Your task to perform on an android device: show emergency info Image 0: 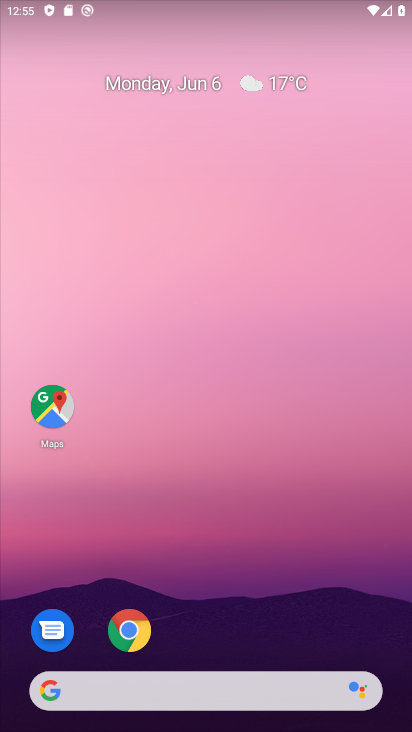
Step 0: drag from (198, 369) to (153, 187)
Your task to perform on an android device: show emergency info Image 1: 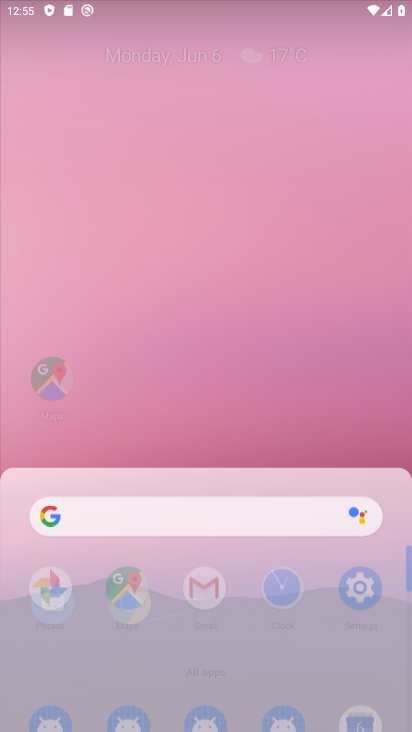
Step 1: drag from (228, 707) to (191, 228)
Your task to perform on an android device: show emergency info Image 2: 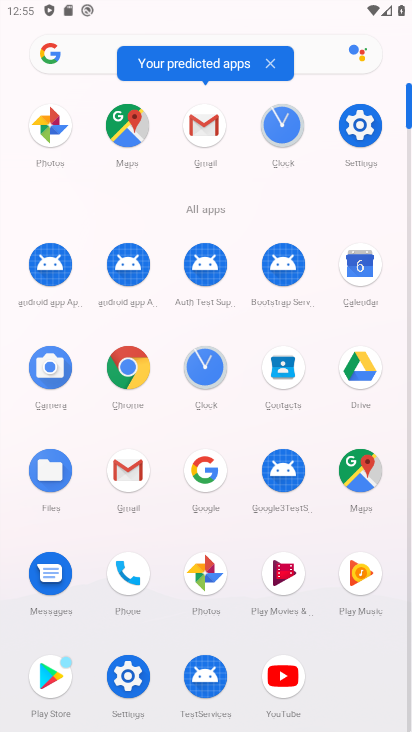
Step 2: click (129, 687)
Your task to perform on an android device: show emergency info Image 3: 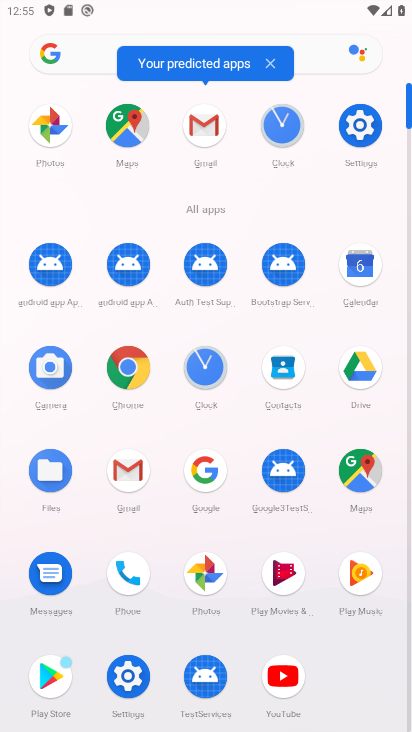
Step 3: click (129, 687)
Your task to perform on an android device: show emergency info Image 4: 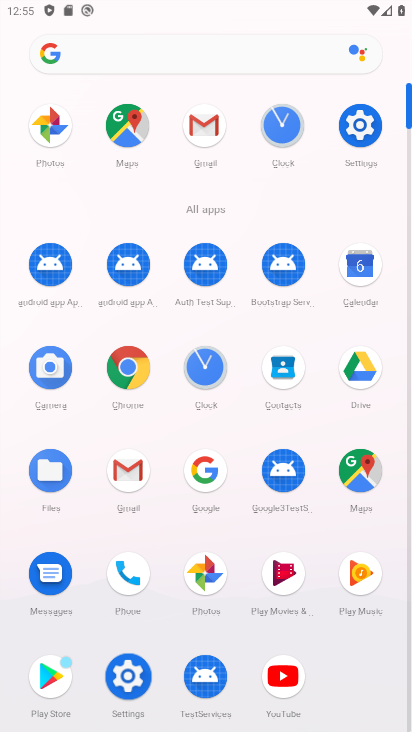
Step 4: click (130, 688)
Your task to perform on an android device: show emergency info Image 5: 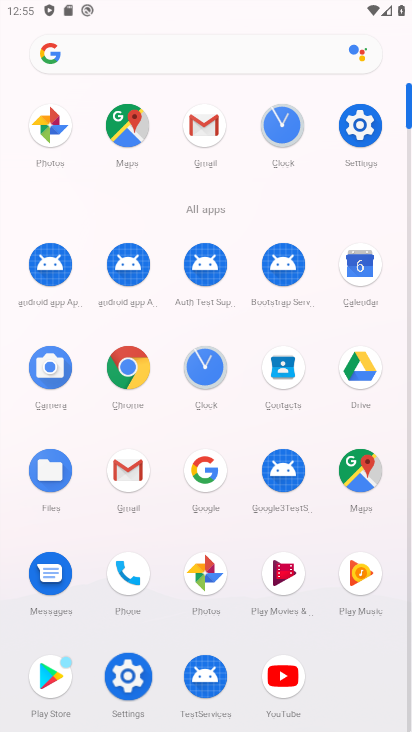
Step 5: click (137, 689)
Your task to perform on an android device: show emergency info Image 6: 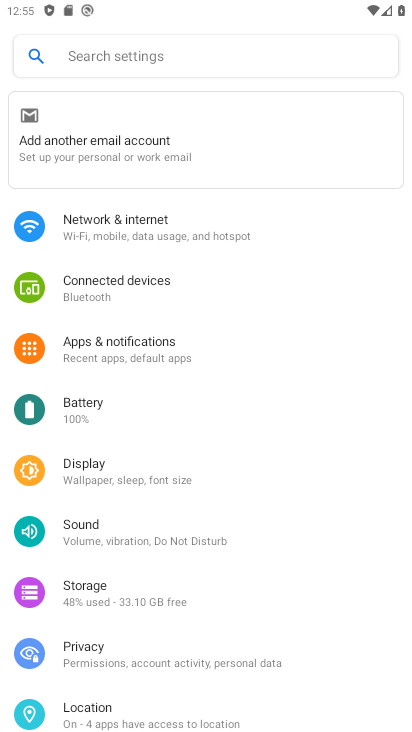
Step 6: drag from (109, 366) to (100, 277)
Your task to perform on an android device: show emergency info Image 7: 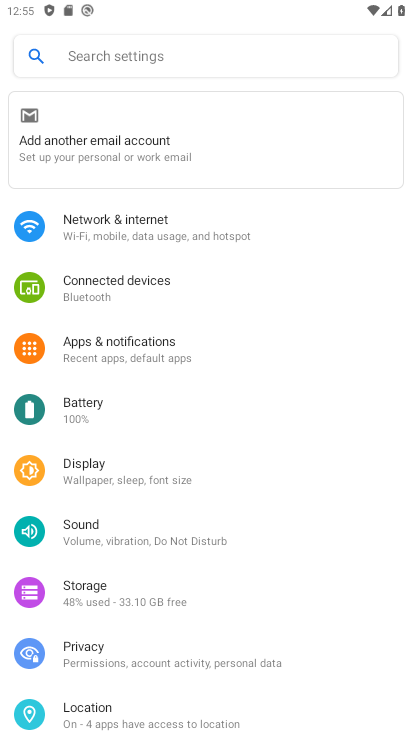
Step 7: drag from (158, 481) to (231, 276)
Your task to perform on an android device: show emergency info Image 8: 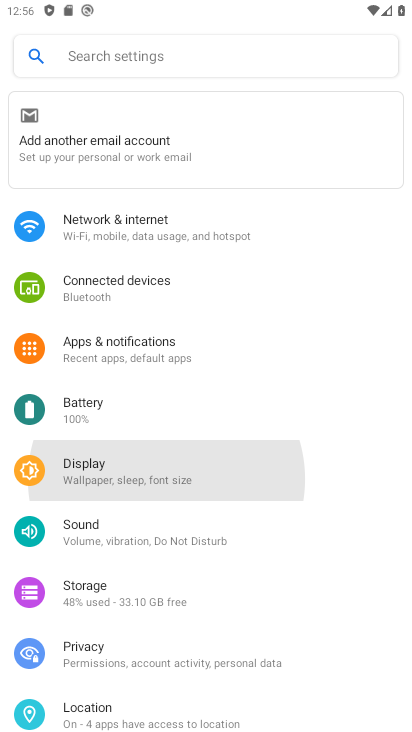
Step 8: drag from (235, 520) to (183, 290)
Your task to perform on an android device: show emergency info Image 9: 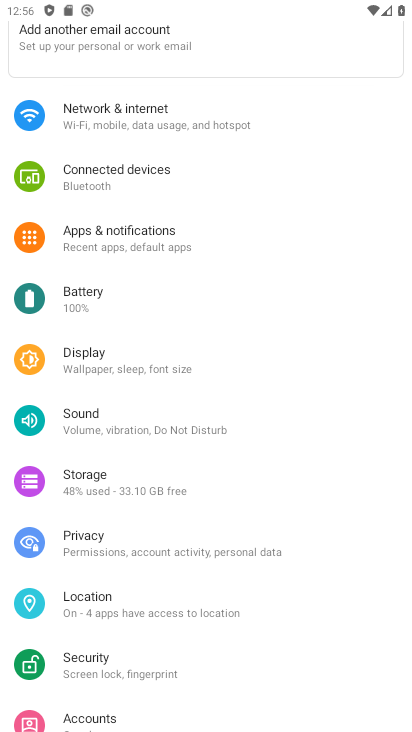
Step 9: drag from (138, 541) to (94, 313)
Your task to perform on an android device: show emergency info Image 10: 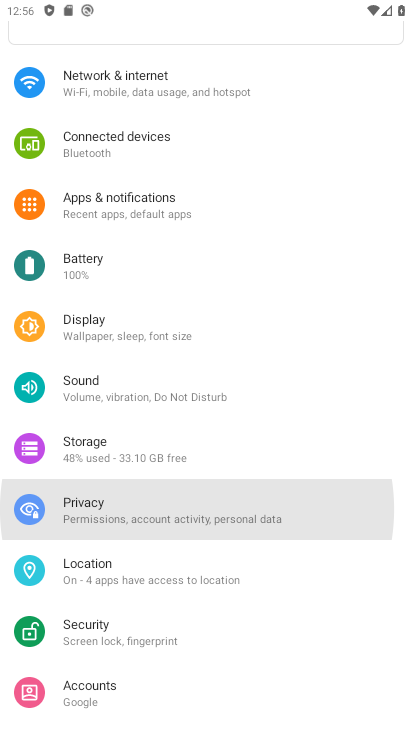
Step 10: drag from (154, 520) to (110, 287)
Your task to perform on an android device: show emergency info Image 11: 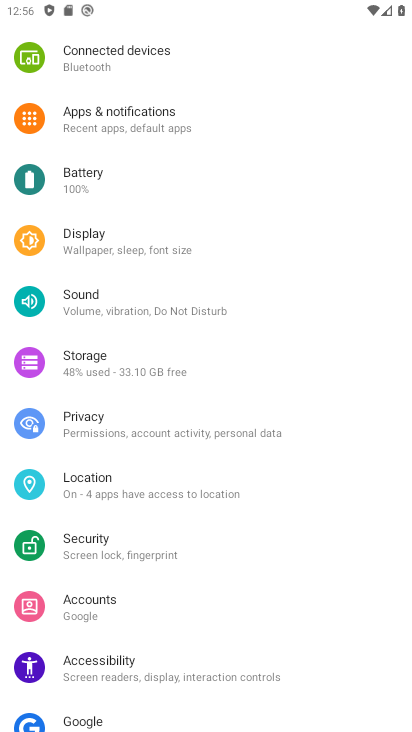
Step 11: drag from (119, 371) to (114, 308)
Your task to perform on an android device: show emergency info Image 12: 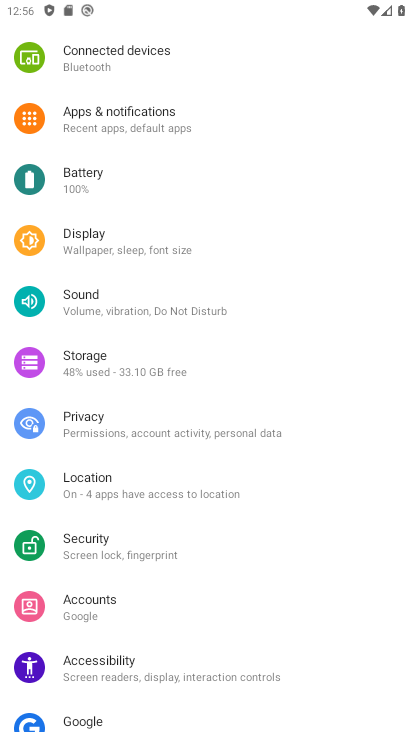
Step 12: drag from (124, 576) to (70, 337)
Your task to perform on an android device: show emergency info Image 13: 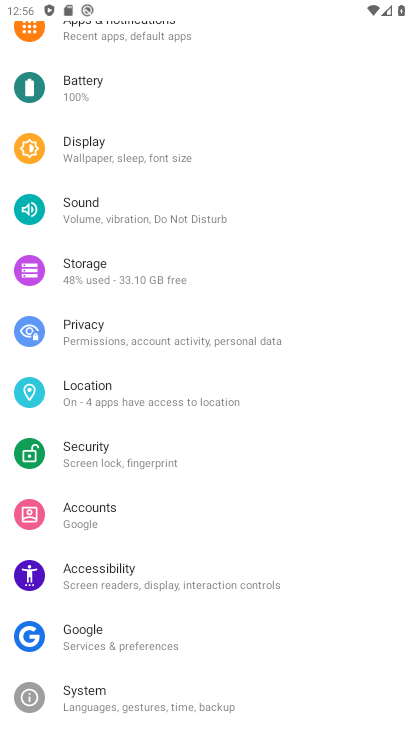
Step 13: drag from (174, 625) to (111, 147)
Your task to perform on an android device: show emergency info Image 14: 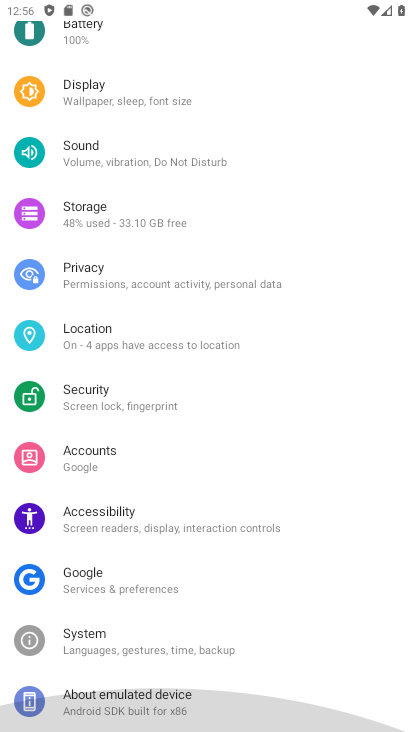
Step 14: drag from (237, 495) to (182, 152)
Your task to perform on an android device: show emergency info Image 15: 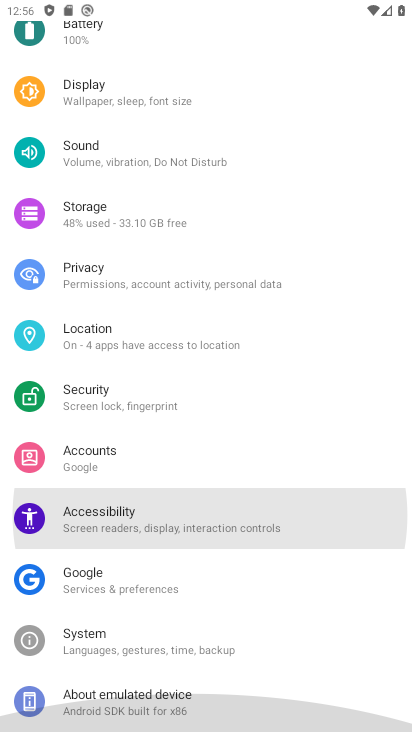
Step 15: drag from (209, 590) to (164, 327)
Your task to perform on an android device: show emergency info Image 16: 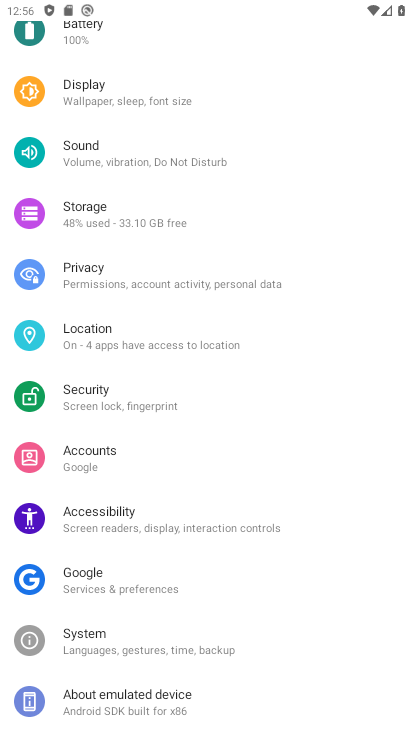
Step 16: click (127, 702)
Your task to perform on an android device: show emergency info Image 17: 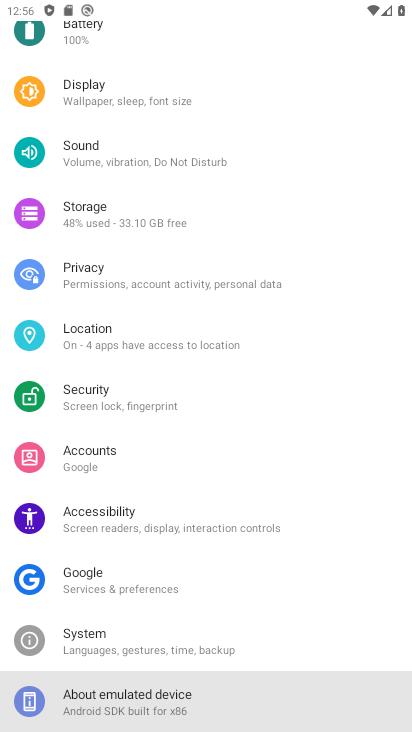
Step 17: click (127, 702)
Your task to perform on an android device: show emergency info Image 18: 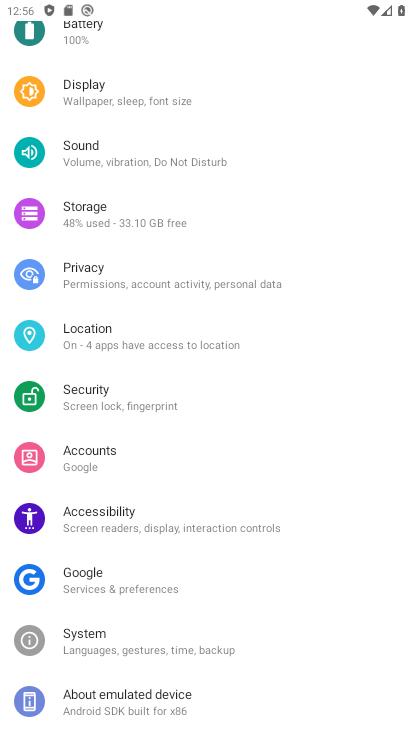
Step 18: click (127, 702)
Your task to perform on an android device: show emergency info Image 19: 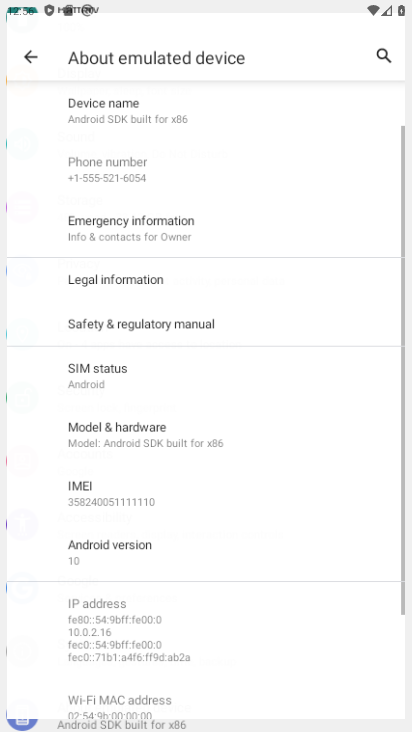
Step 19: click (127, 702)
Your task to perform on an android device: show emergency info Image 20: 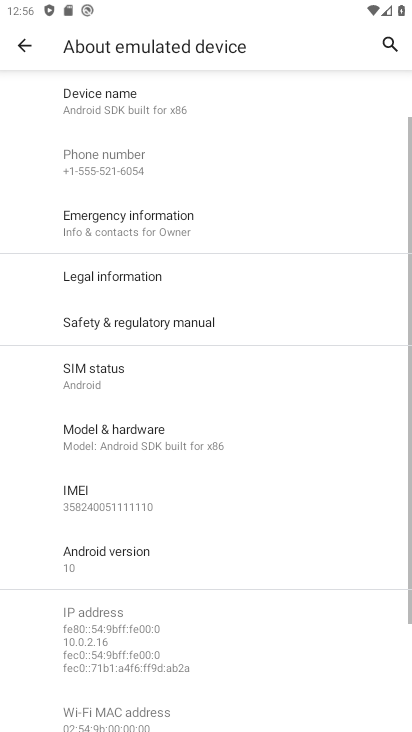
Step 20: task complete